Your task to perform on an android device: Open the calendar and show me this week's events? Image 0: 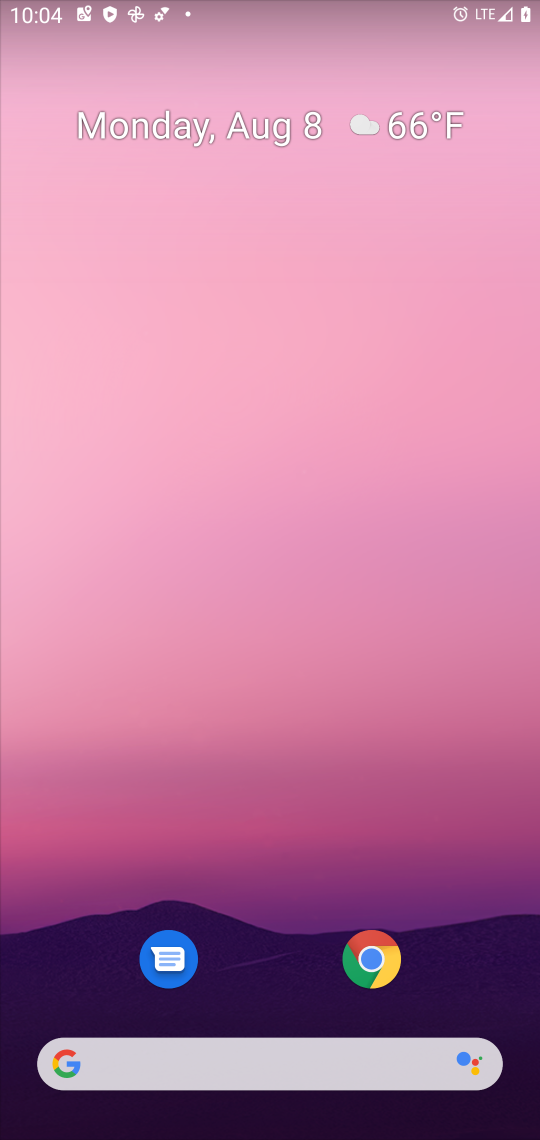
Step 0: drag from (482, 834) to (247, 42)
Your task to perform on an android device: Open the calendar and show me this week's events? Image 1: 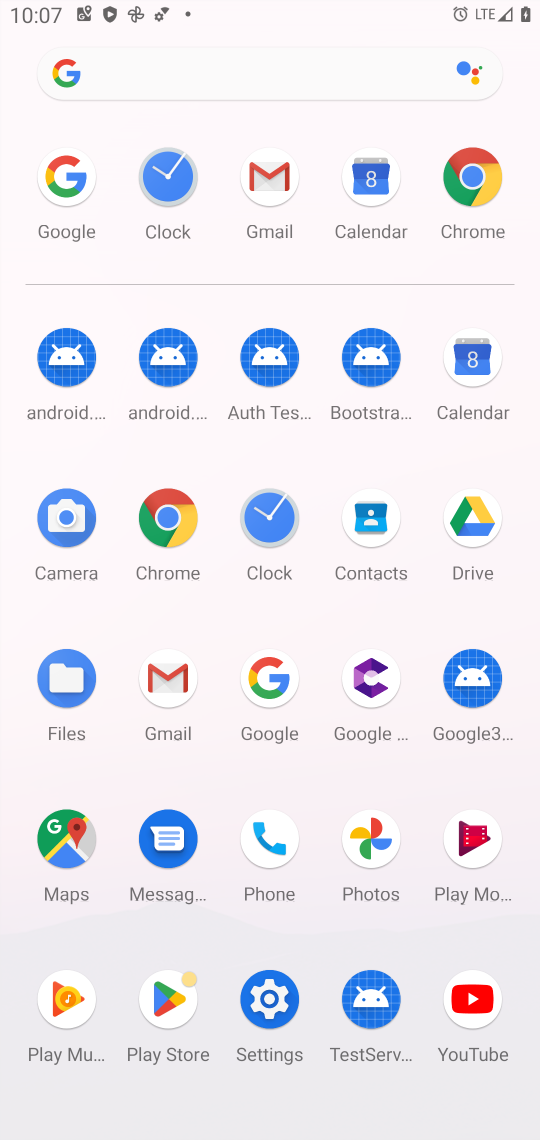
Step 1: click (477, 330)
Your task to perform on an android device: Open the calendar and show me this week's events? Image 2: 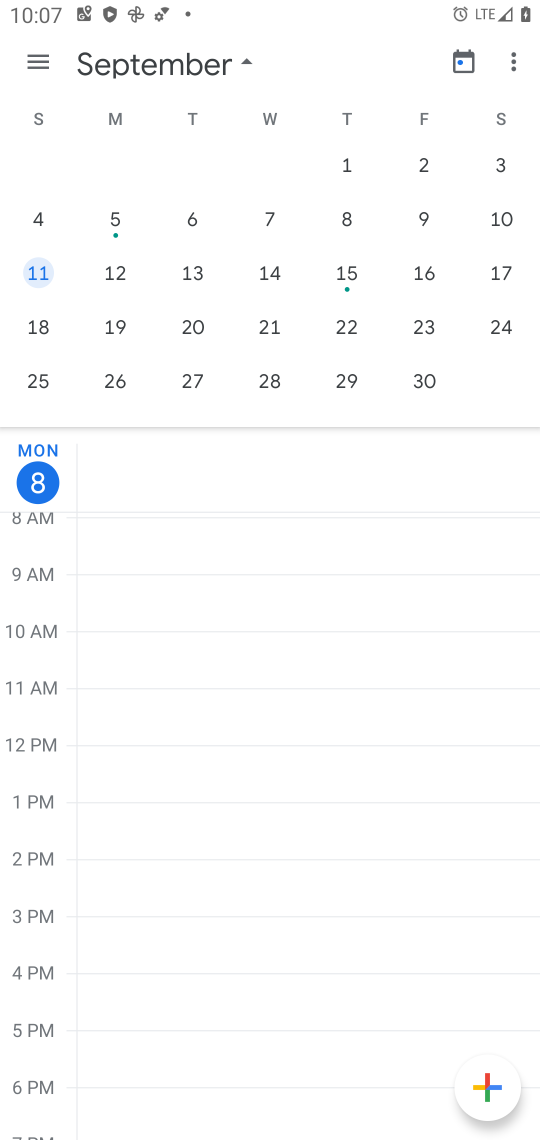
Step 2: task complete